Your task to perform on an android device: turn off translation in the chrome app Image 0: 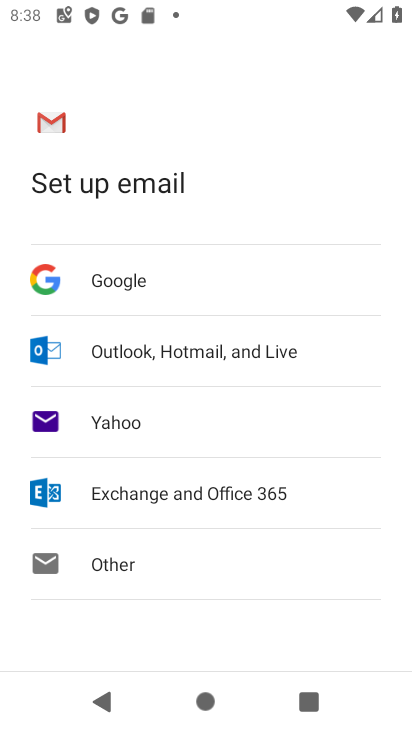
Step 0: press home button
Your task to perform on an android device: turn off translation in the chrome app Image 1: 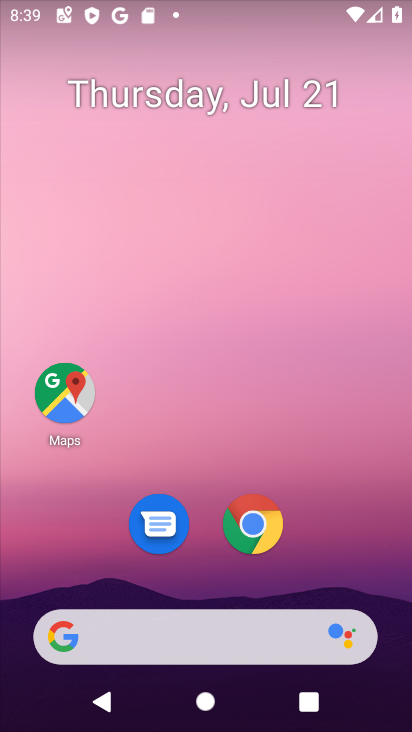
Step 1: click (257, 526)
Your task to perform on an android device: turn off translation in the chrome app Image 2: 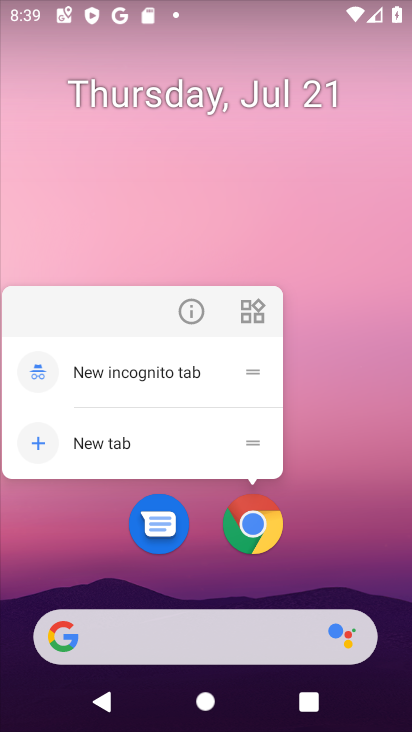
Step 2: click (251, 516)
Your task to perform on an android device: turn off translation in the chrome app Image 3: 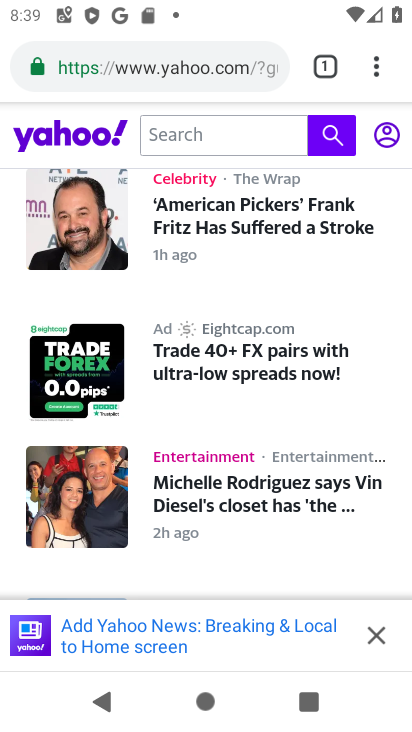
Step 3: drag from (374, 72) to (214, 531)
Your task to perform on an android device: turn off translation in the chrome app Image 4: 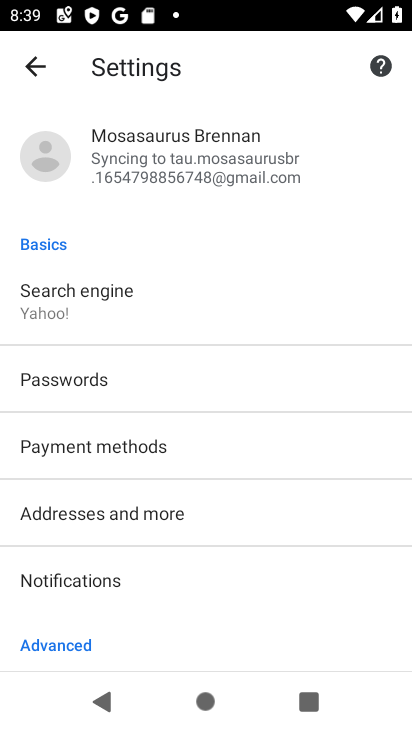
Step 4: drag from (199, 582) to (321, 246)
Your task to perform on an android device: turn off translation in the chrome app Image 5: 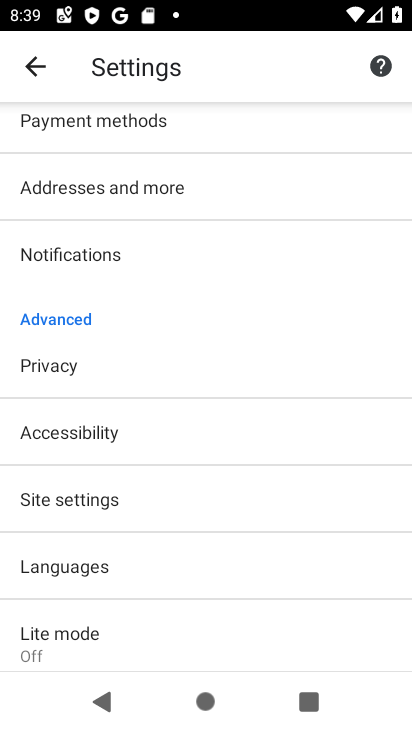
Step 5: click (68, 569)
Your task to perform on an android device: turn off translation in the chrome app Image 6: 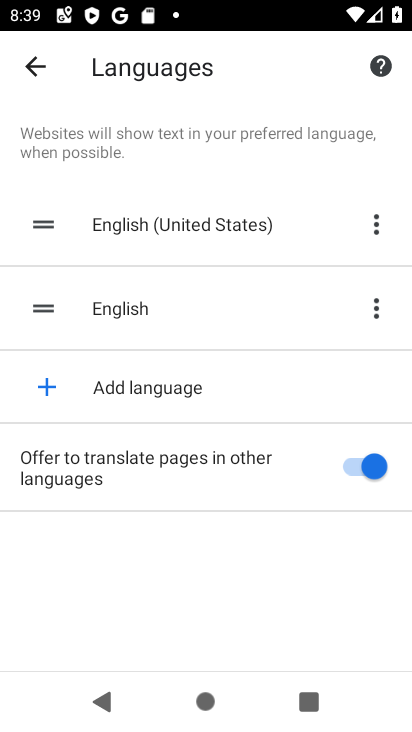
Step 6: click (355, 466)
Your task to perform on an android device: turn off translation in the chrome app Image 7: 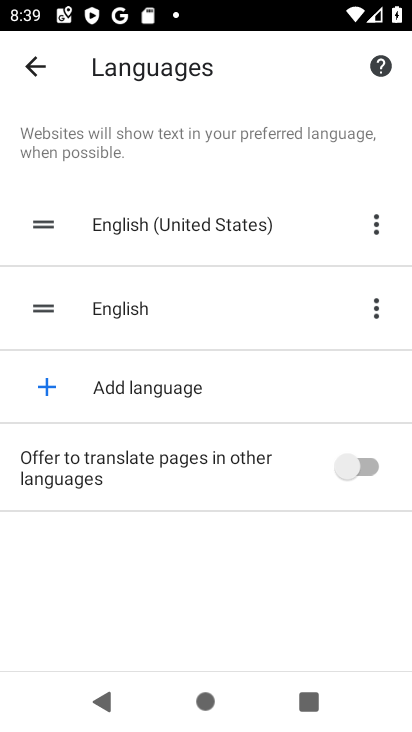
Step 7: task complete